Your task to perform on an android device: check storage Image 0: 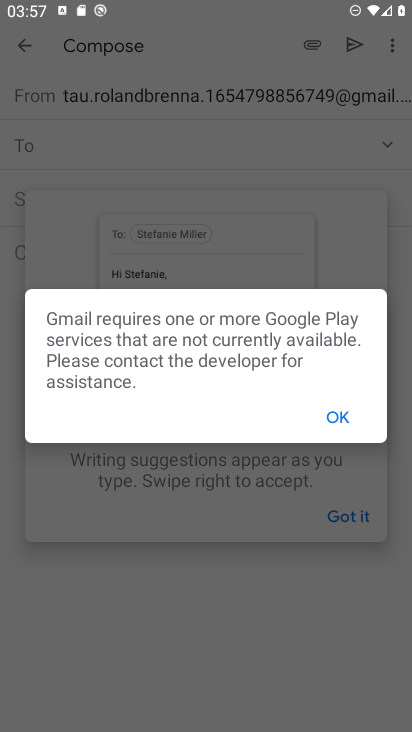
Step 0: press home button
Your task to perform on an android device: check storage Image 1: 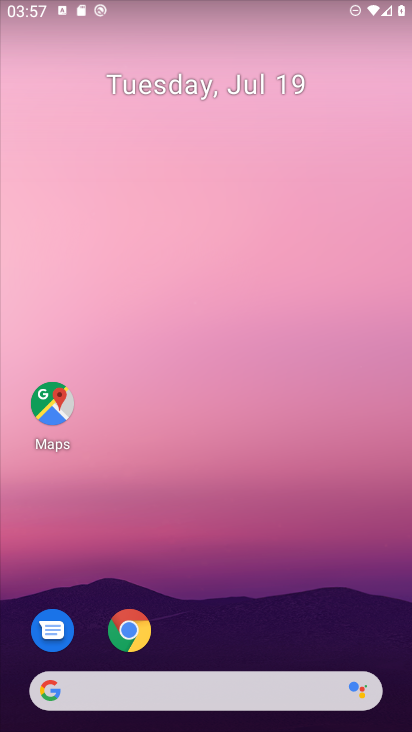
Step 1: drag from (366, 610) to (305, 201)
Your task to perform on an android device: check storage Image 2: 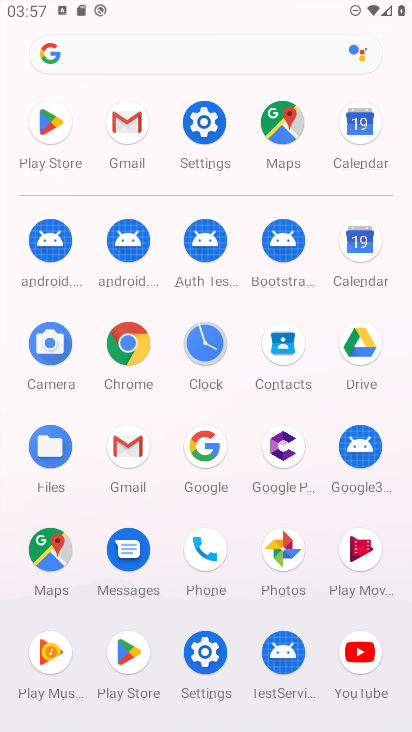
Step 2: click (208, 655)
Your task to perform on an android device: check storage Image 3: 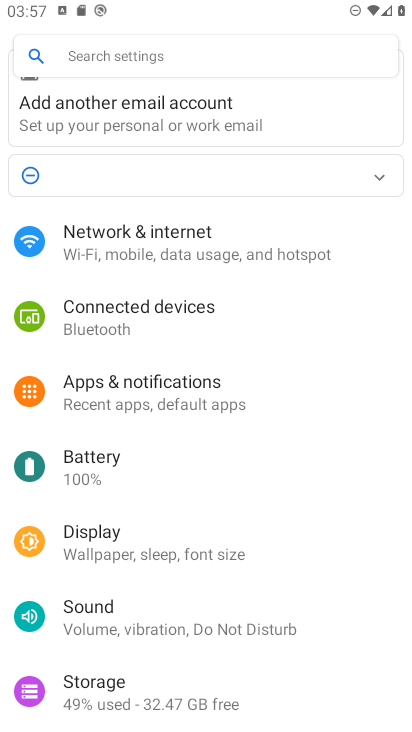
Step 3: drag from (208, 655) to (199, 392)
Your task to perform on an android device: check storage Image 4: 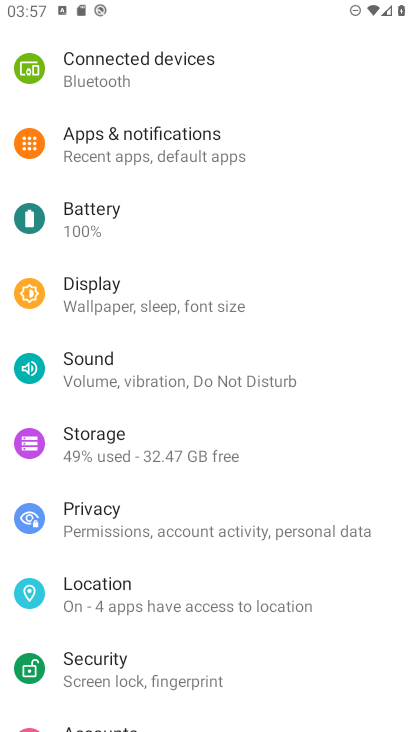
Step 4: click (124, 436)
Your task to perform on an android device: check storage Image 5: 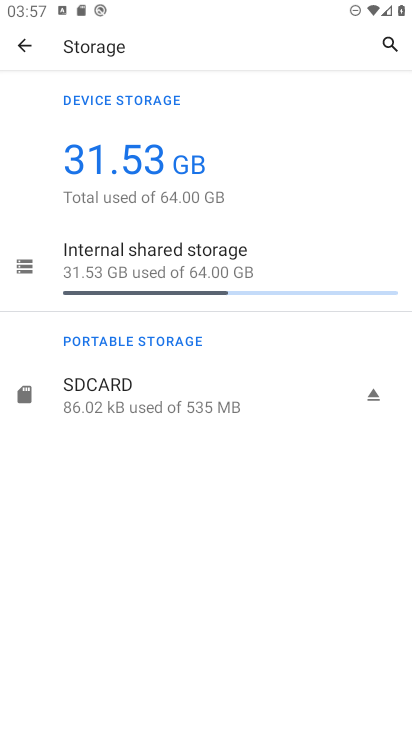
Step 5: task complete